Your task to perform on an android device: change the clock display to digital Image 0: 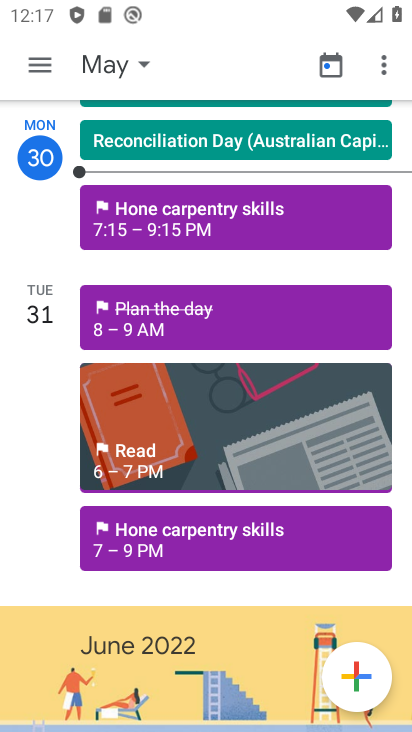
Step 0: press home button
Your task to perform on an android device: change the clock display to digital Image 1: 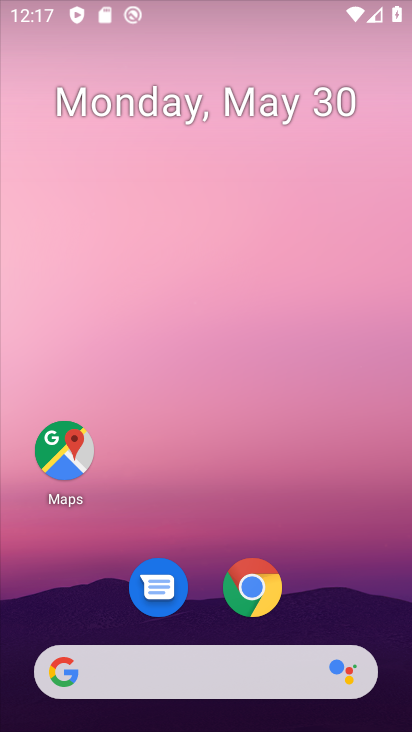
Step 1: drag from (307, 589) to (307, 82)
Your task to perform on an android device: change the clock display to digital Image 2: 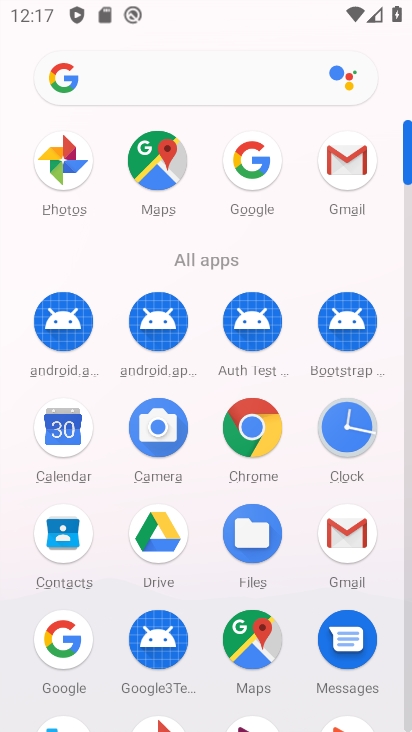
Step 2: drag from (199, 584) to (244, 100)
Your task to perform on an android device: change the clock display to digital Image 3: 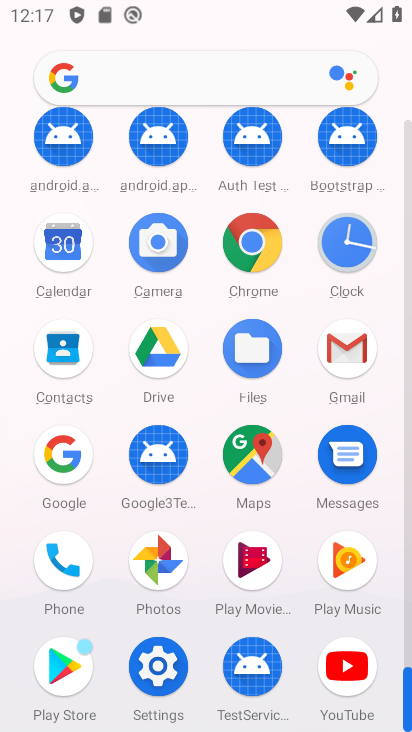
Step 3: click (348, 240)
Your task to perform on an android device: change the clock display to digital Image 4: 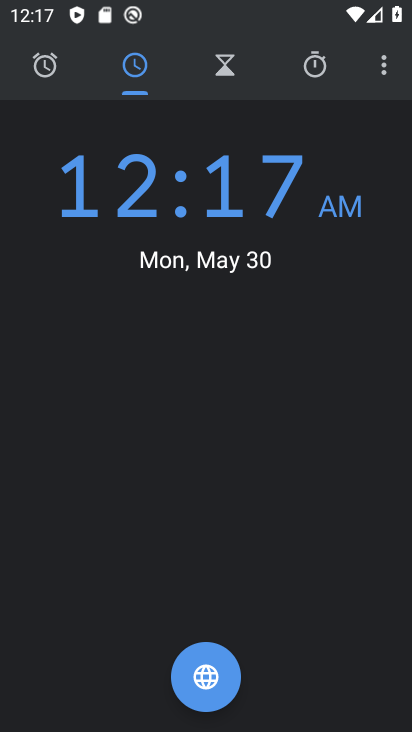
Step 4: click (376, 72)
Your task to perform on an android device: change the clock display to digital Image 5: 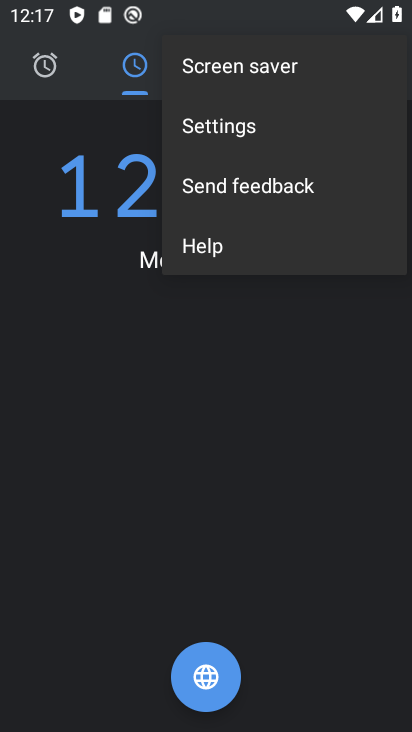
Step 5: click (186, 124)
Your task to perform on an android device: change the clock display to digital Image 6: 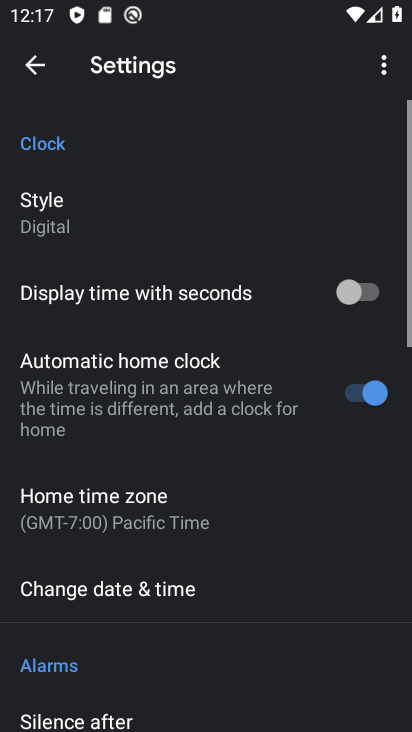
Step 6: click (97, 225)
Your task to perform on an android device: change the clock display to digital Image 7: 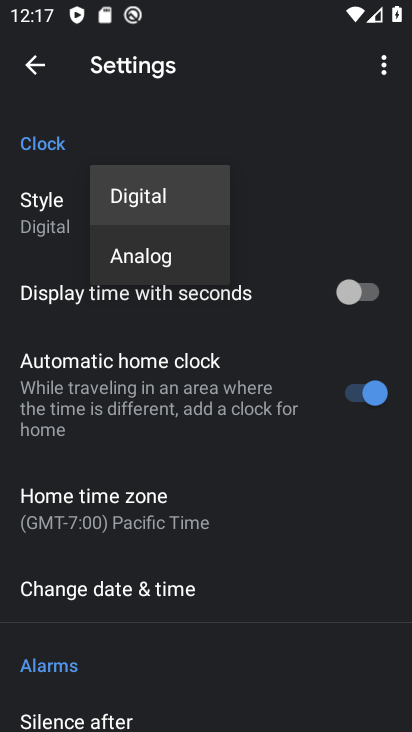
Step 7: click (154, 217)
Your task to perform on an android device: change the clock display to digital Image 8: 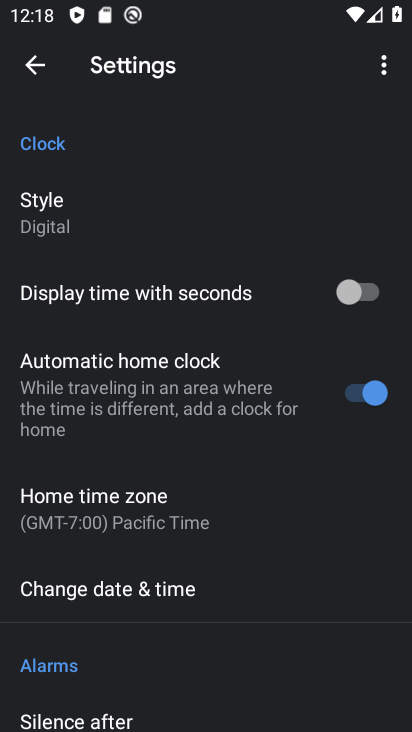
Step 8: task complete